Your task to perform on an android device: Open sound settings Image 0: 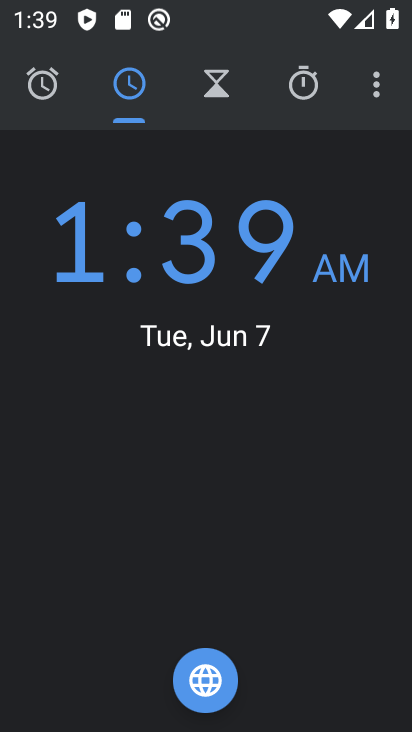
Step 0: click (378, 84)
Your task to perform on an android device: Open sound settings Image 1: 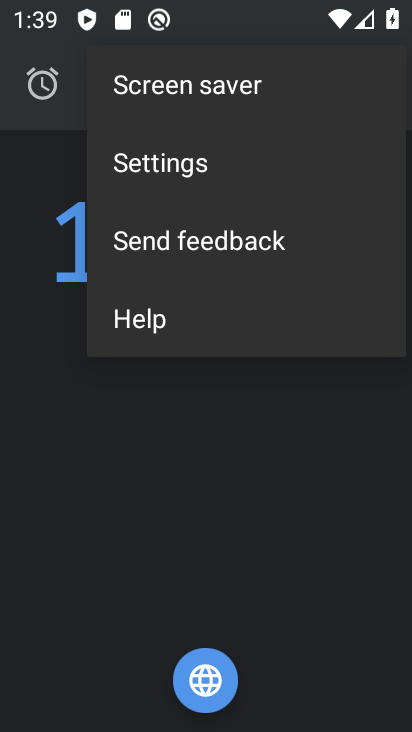
Step 1: press home button
Your task to perform on an android device: Open sound settings Image 2: 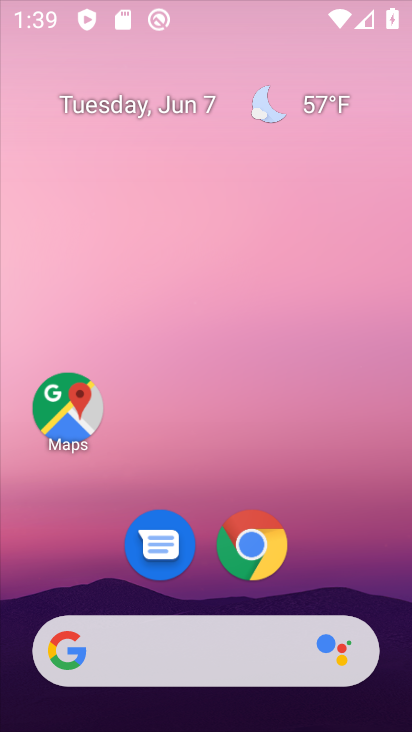
Step 2: drag from (348, 545) to (183, 15)
Your task to perform on an android device: Open sound settings Image 3: 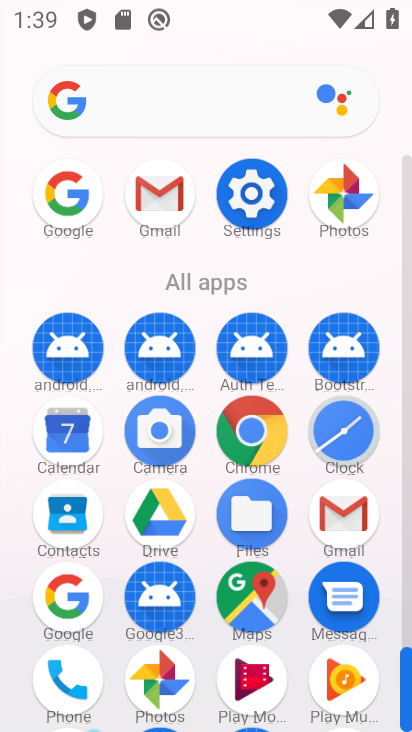
Step 3: click (240, 171)
Your task to perform on an android device: Open sound settings Image 4: 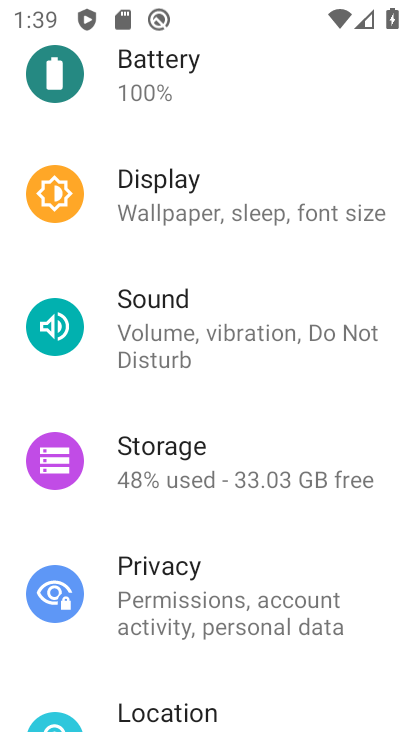
Step 4: click (187, 337)
Your task to perform on an android device: Open sound settings Image 5: 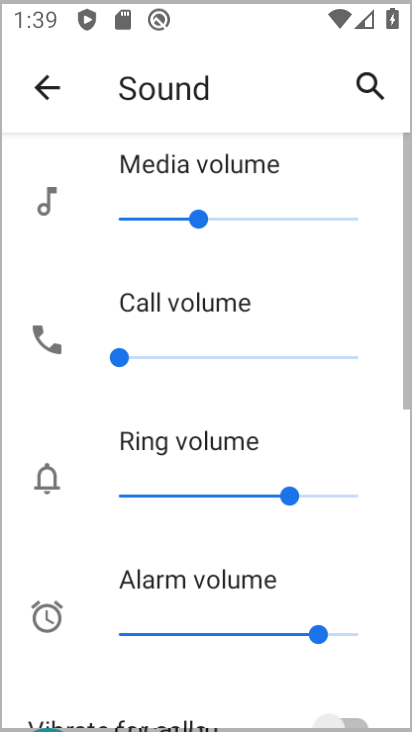
Step 5: task complete